Your task to perform on an android device: empty trash in the gmail app Image 0: 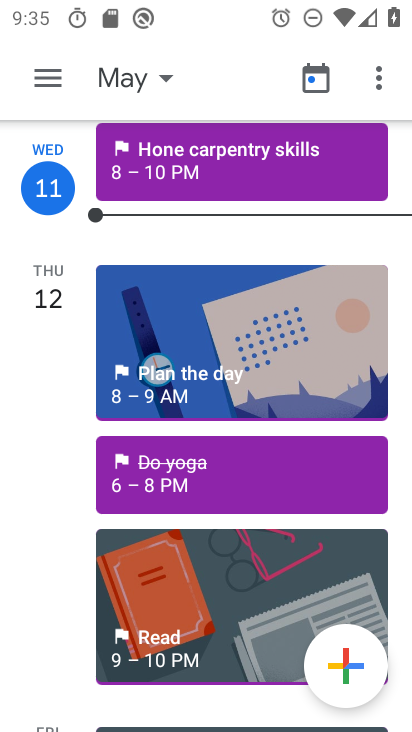
Step 0: press home button
Your task to perform on an android device: empty trash in the gmail app Image 1: 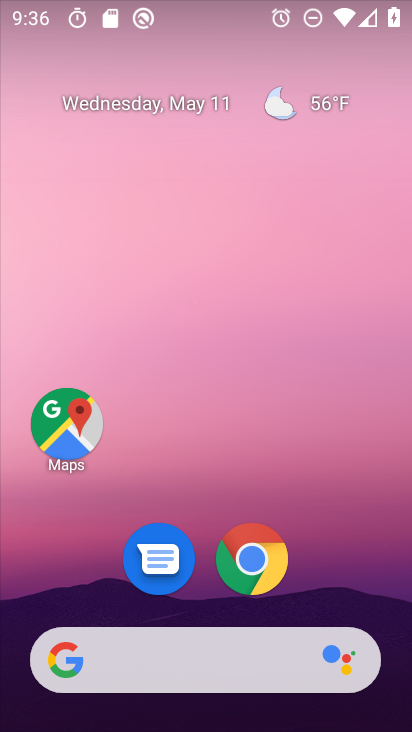
Step 1: drag from (342, 545) to (367, 63)
Your task to perform on an android device: empty trash in the gmail app Image 2: 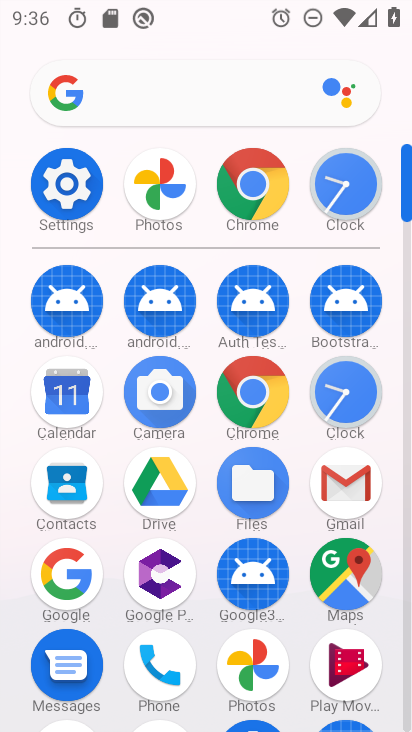
Step 2: click (347, 480)
Your task to perform on an android device: empty trash in the gmail app Image 3: 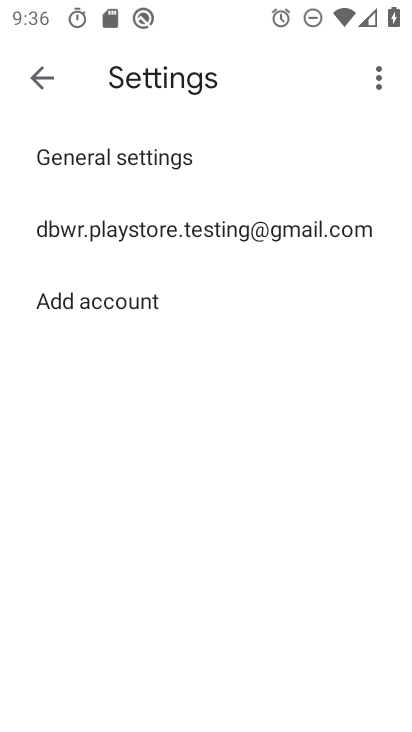
Step 3: click (43, 68)
Your task to perform on an android device: empty trash in the gmail app Image 4: 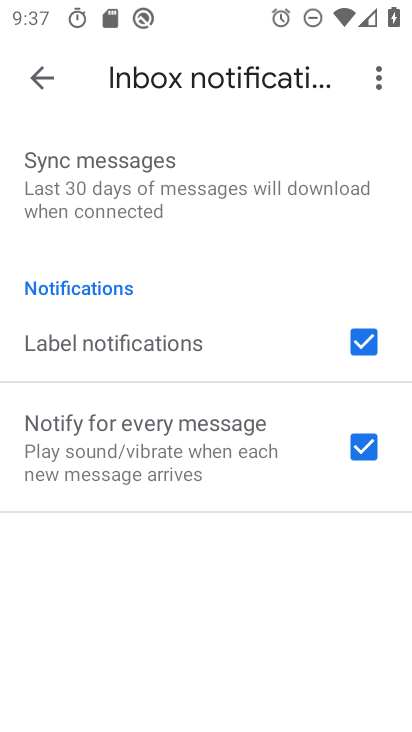
Step 4: click (42, 67)
Your task to perform on an android device: empty trash in the gmail app Image 5: 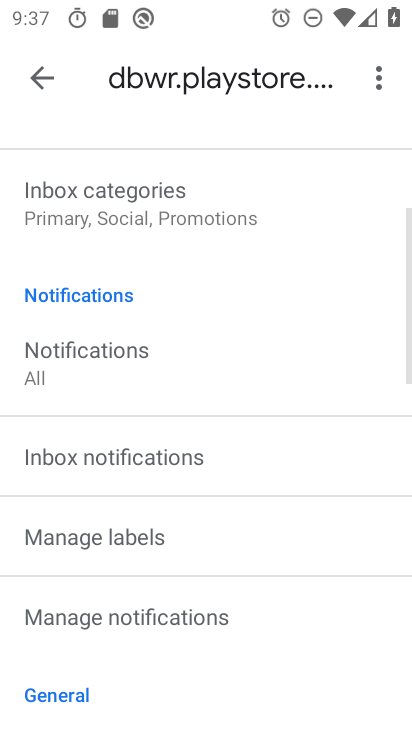
Step 5: click (42, 67)
Your task to perform on an android device: empty trash in the gmail app Image 6: 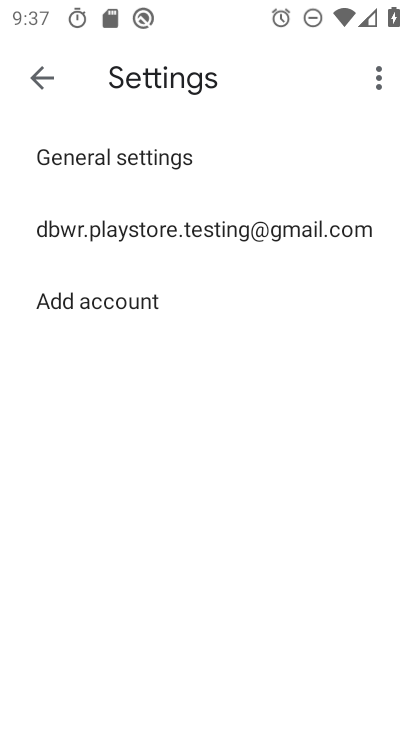
Step 6: click (42, 67)
Your task to perform on an android device: empty trash in the gmail app Image 7: 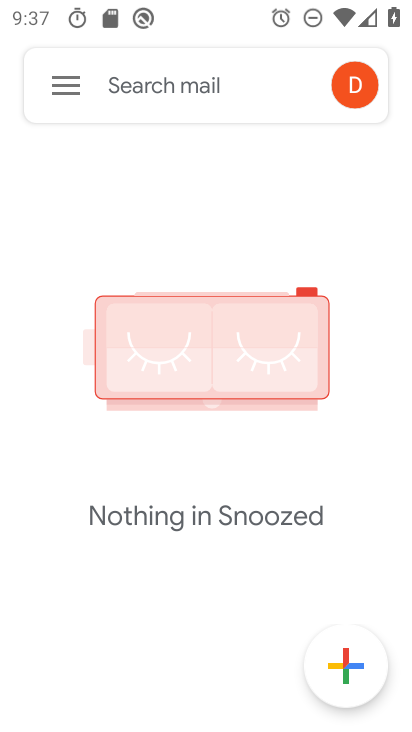
Step 7: click (62, 87)
Your task to perform on an android device: empty trash in the gmail app Image 8: 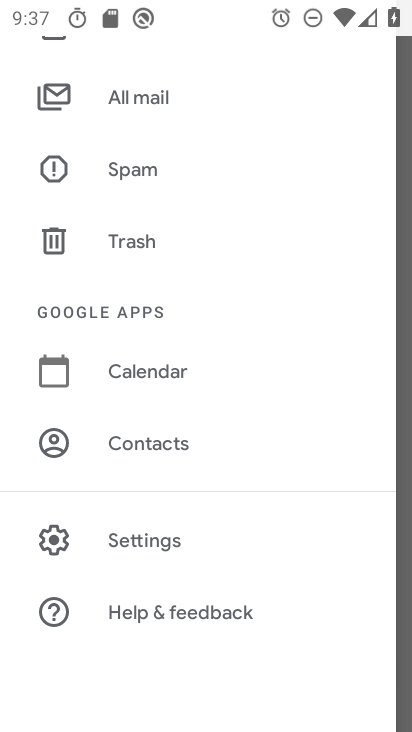
Step 8: click (163, 236)
Your task to perform on an android device: empty trash in the gmail app Image 9: 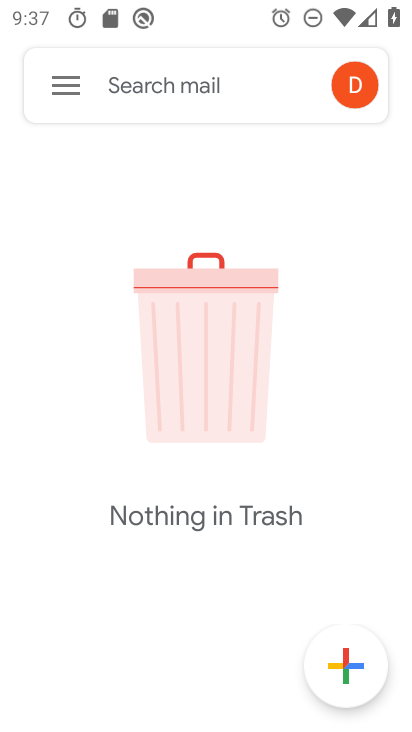
Step 9: task complete